Your task to perform on an android device: turn on the 24-hour format for clock Image 0: 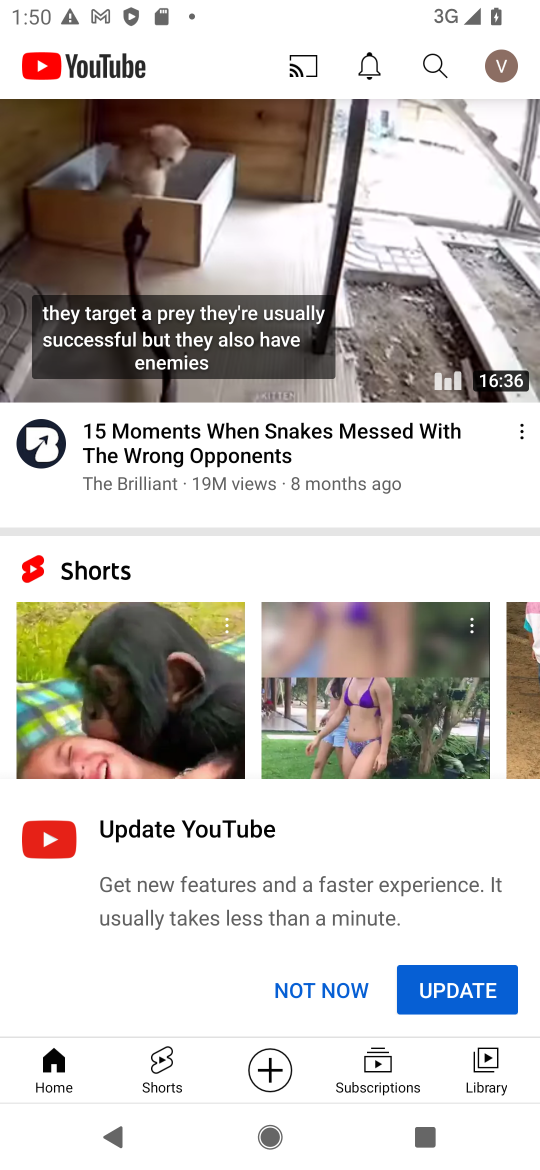
Step 0: press home button
Your task to perform on an android device: turn on the 24-hour format for clock Image 1: 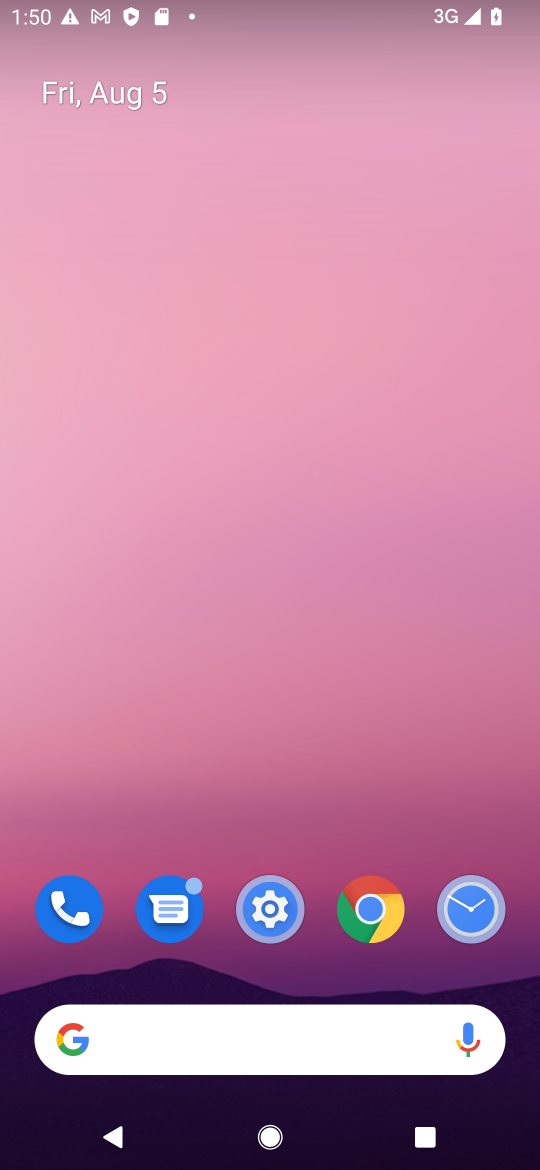
Step 1: click (486, 917)
Your task to perform on an android device: turn on the 24-hour format for clock Image 2: 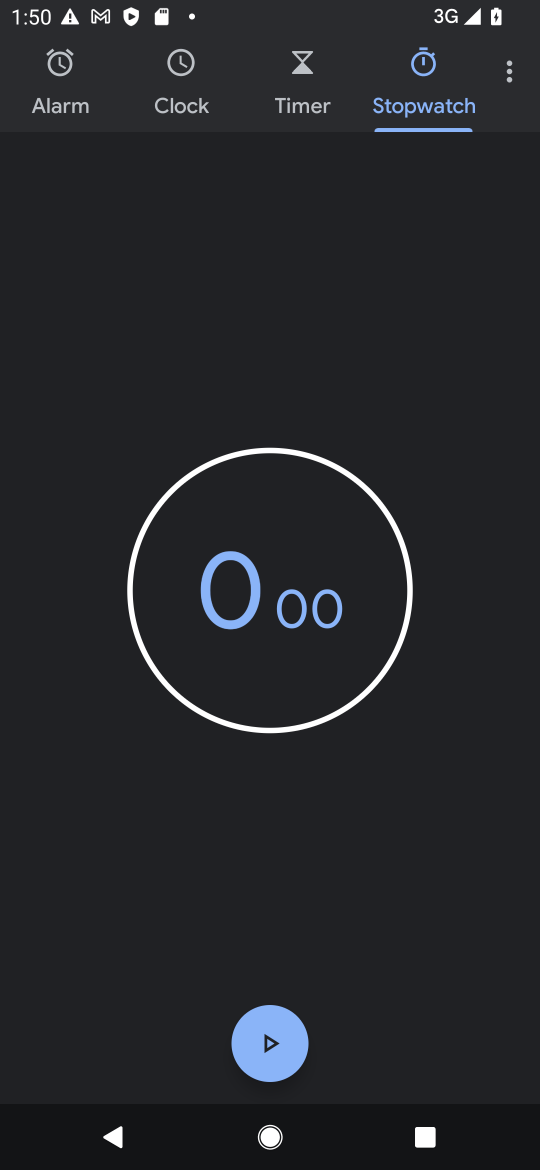
Step 2: click (514, 69)
Your task to perform on an android device: turn on the 24-hour format for clock Image 3: 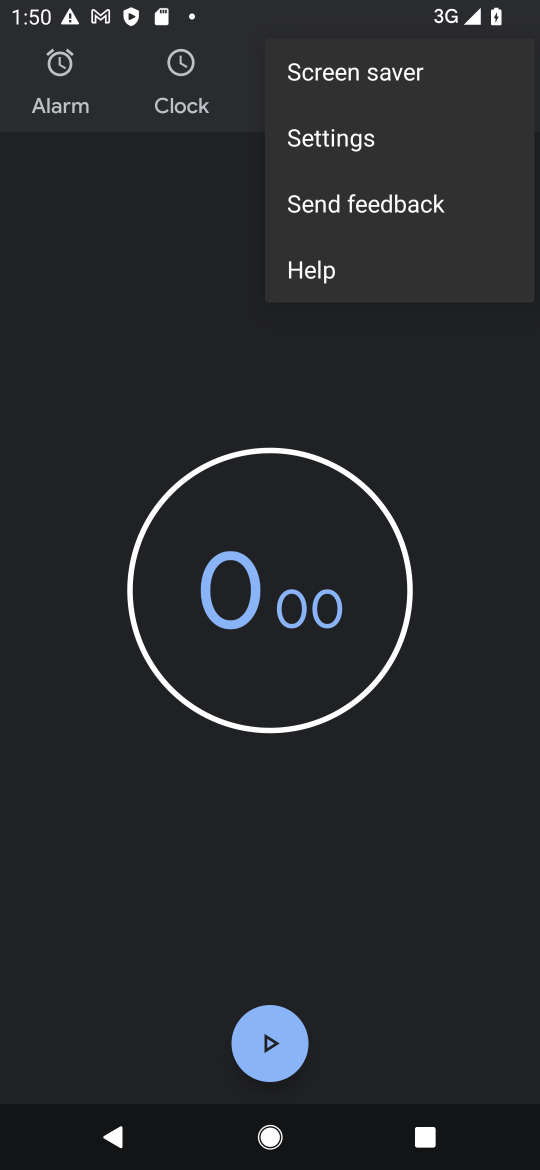
Step 3: click (332, 134)
Your task to perform on an android device: turn on the 24-hour format for clock Image 4: 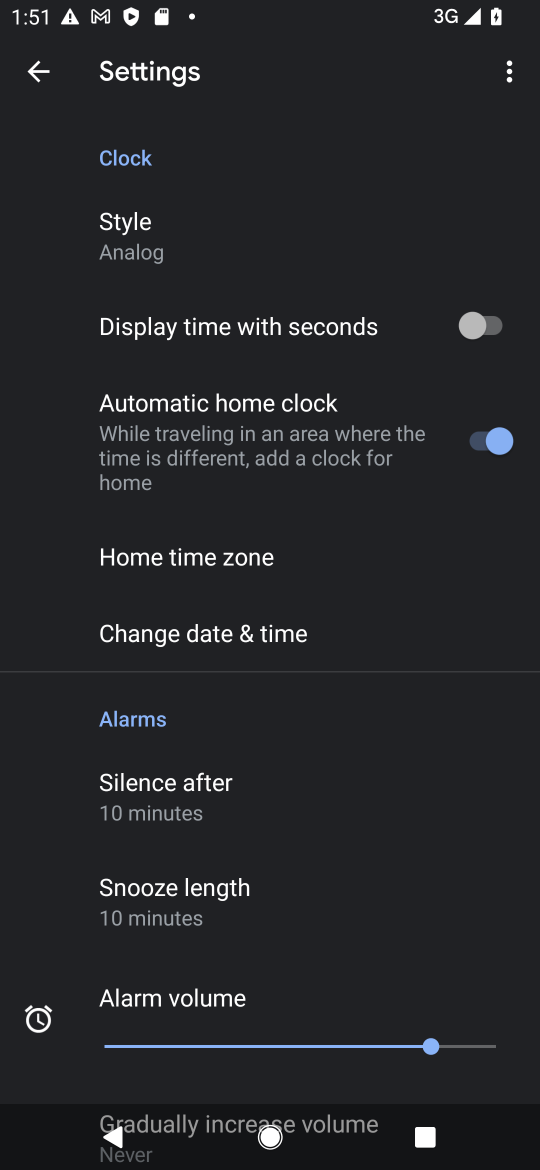
Step 4: click (217, 635)
Your task to perform on an android device: turn on the 24-hour format for clock Image 5: 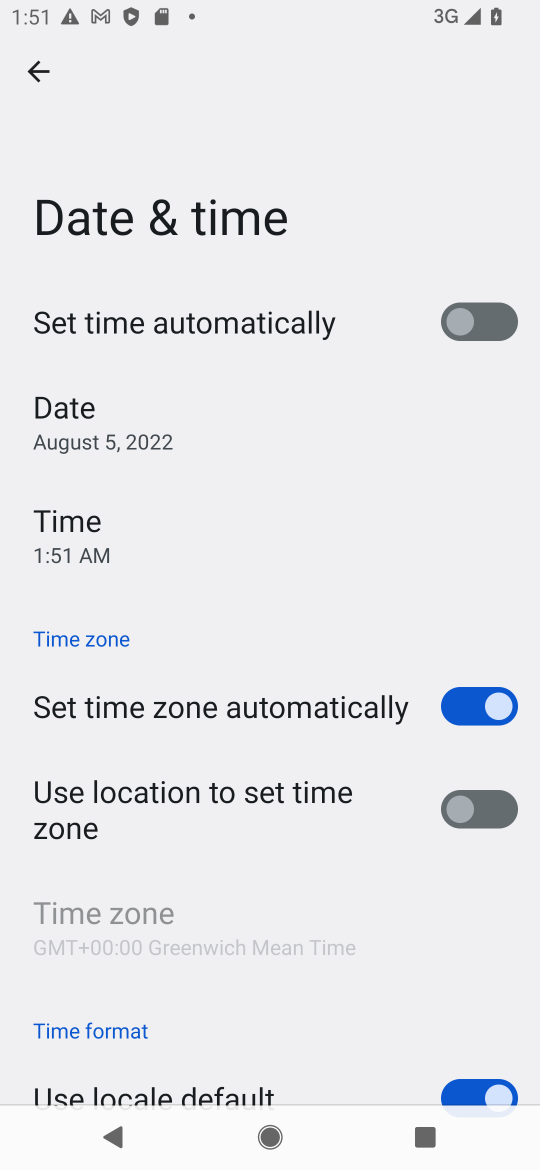
Step 5: drag from (368, 922) to (333, 519)
Your task to perform on an android device: turn on the 24-hour format for clock Image 6: 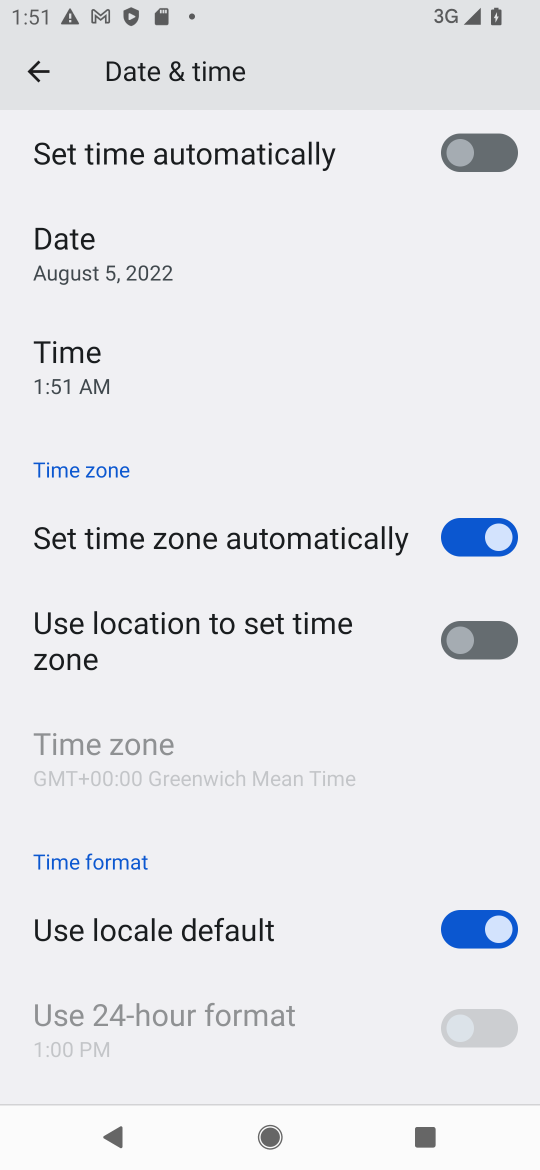
Step 6: click (503, 921)
Your task to perform on an android device: turn on the 24-hour format for clock Image 7: 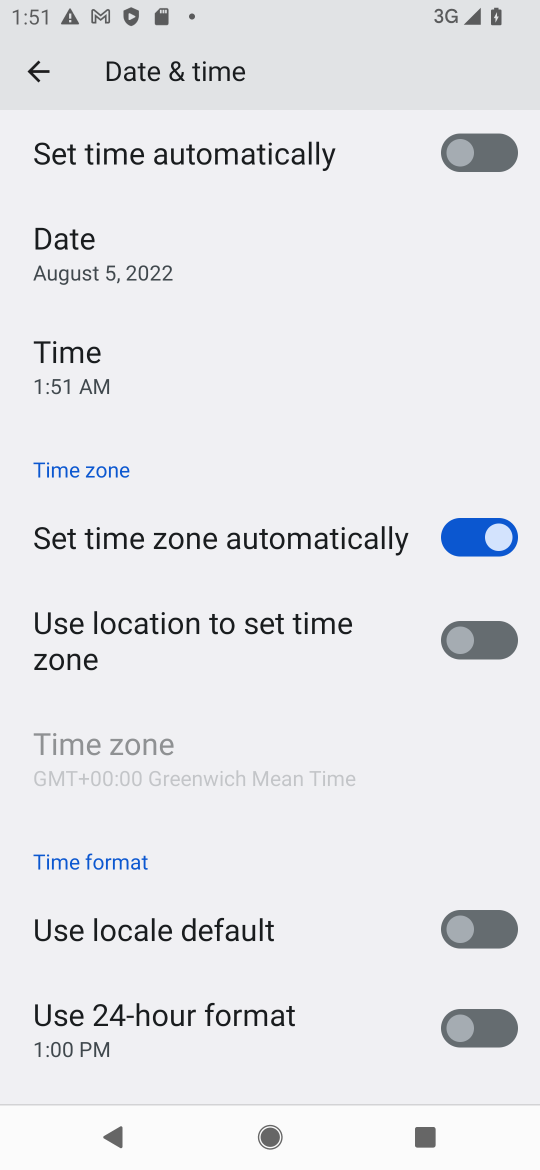
Step 7: click (458, 1024)
Your task to perform on an android device: turn on the 24-hour format for clock Image 8: 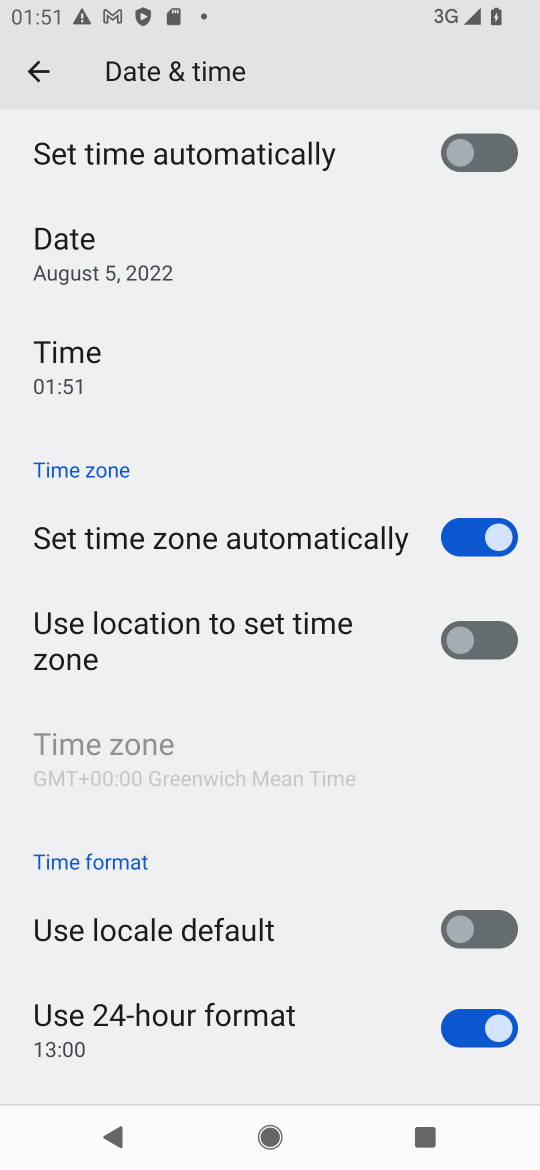
Step 8: task complete